Your task to perform on an android device: Open Google Maps and go to "Timeline" Image 0: 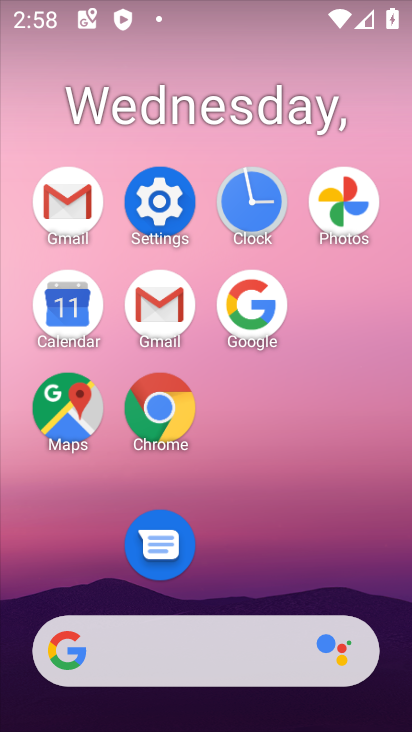
Step 0: click (39, 416)
Your task to perform on an android device: Open Google Maps and go to "Timeline" Image 1: 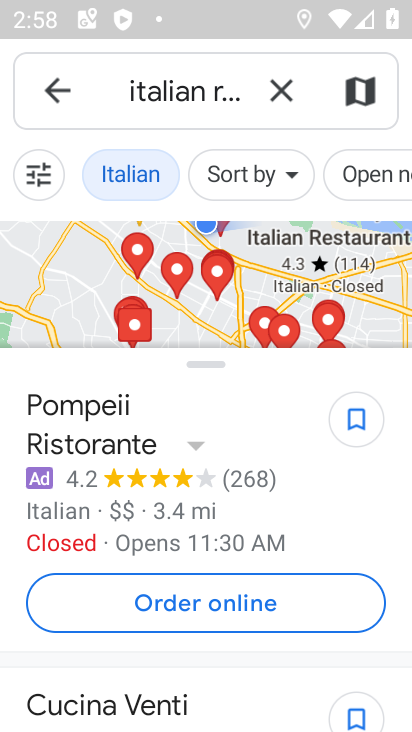
Step 1: click (51, 100)
Your task to perform on an android device: Open Google Maps and go to "Timeline" Image 2: 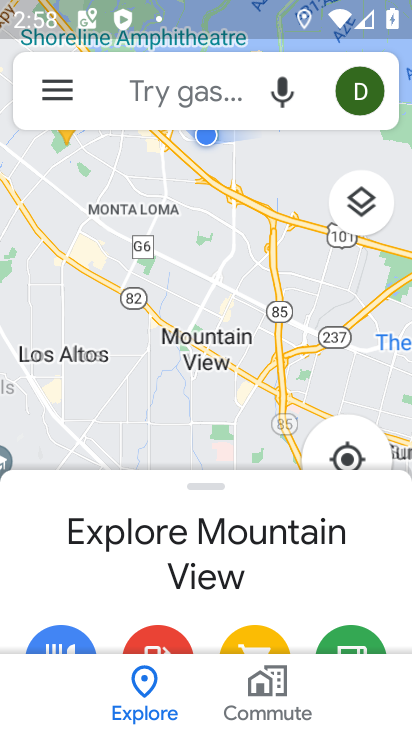
Step 2: click (51, 100)
Your task to perform on an android device: Open Google Maps and go to "Timeline" Image 3: 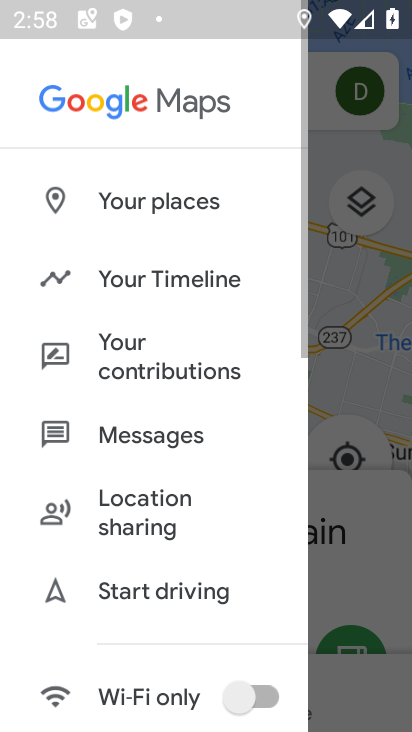
Step 3: click (147, 271)
Your task to perform on an android device: Open Google Maps and go to "Timeline" Image 4: 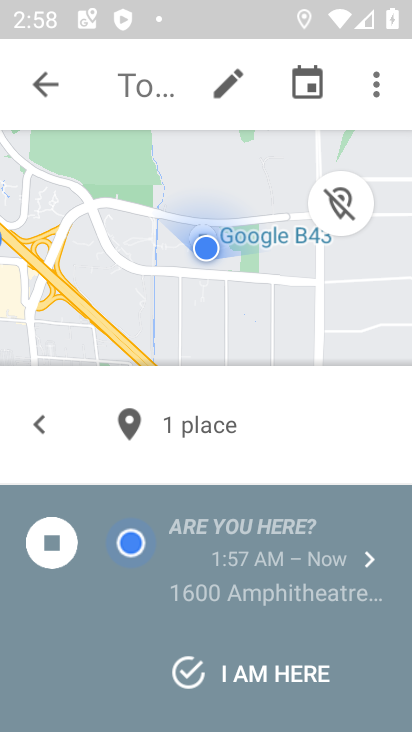
Step 4: task complete